Your task to perform on an android device: Go to eBay Image 0: 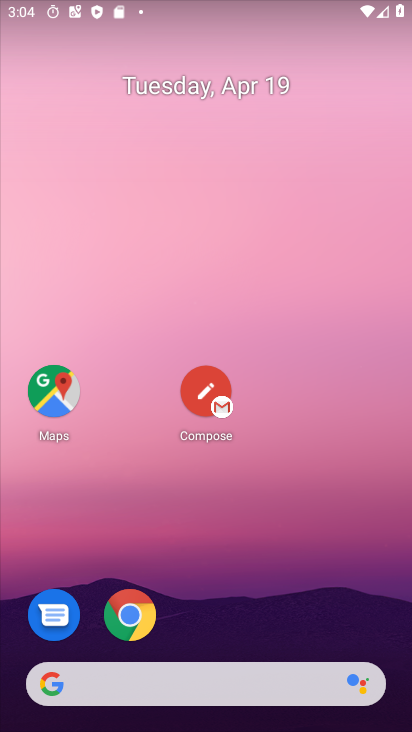
Step 0: click (261, 130)
Your task to perform on an android device: Go to eBay Image 1: 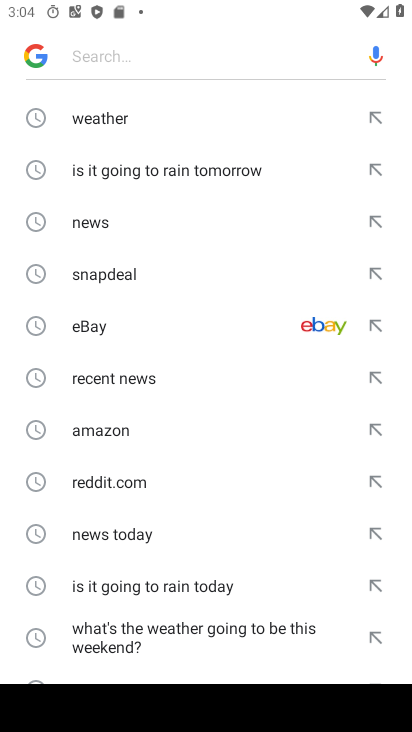
Step 1: press home button
Your task to perform on an android device: Go to eBay Image 2: 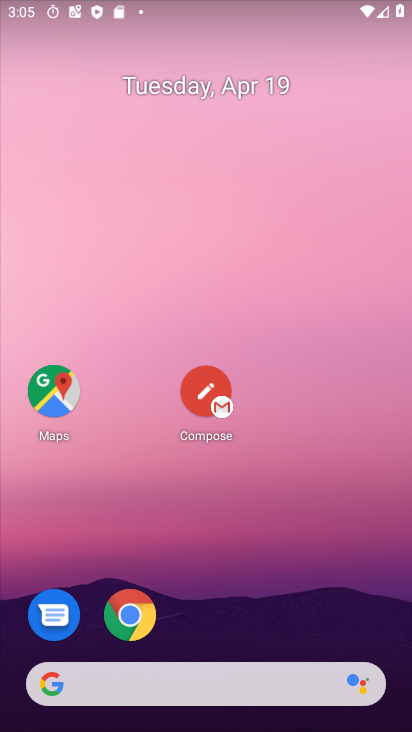
Step 2: drag from (221, 527) to (209, 53)
Your task to perform on an android device: Go to eBay Image 3: 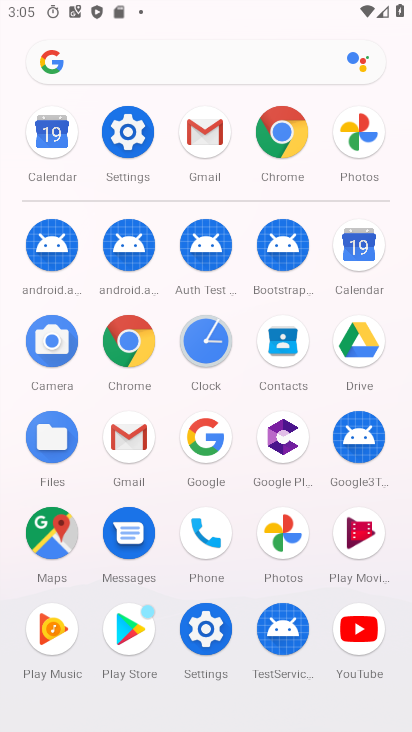
Step 3: click (127, 358)
Your task to perform on an android device: Go to eBay Image 4: 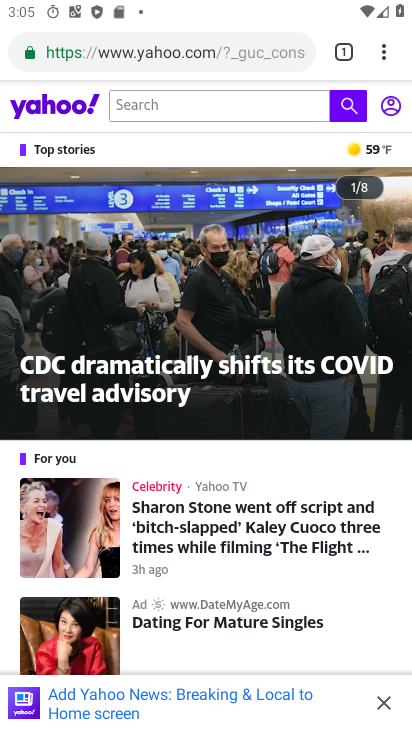
Step 4: click (248, 48)
Your task to perform on an android device: Go to eBay Image 5: 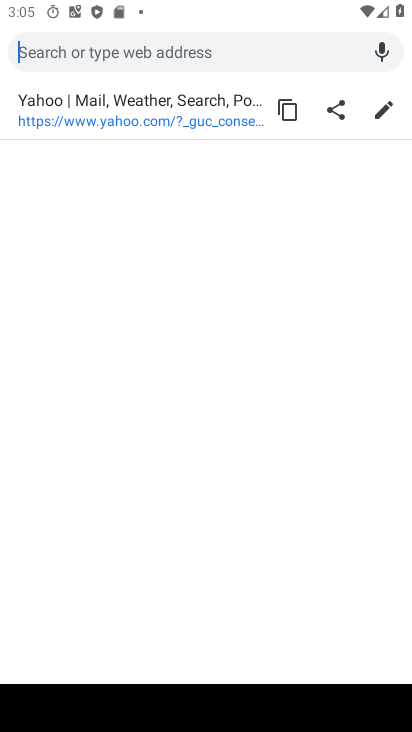
Step 5: type "ebay"
Your task to perform on an android device: Go to eBay Image 6: 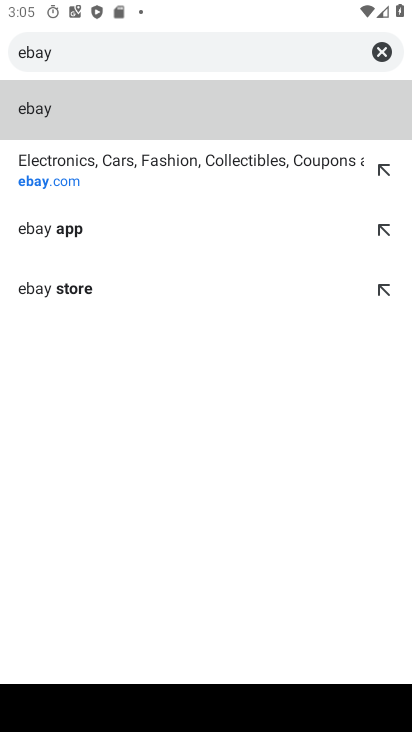
Step 6: click (104, 99)
Your task to perform on an android device: Go to eBay Image 7: 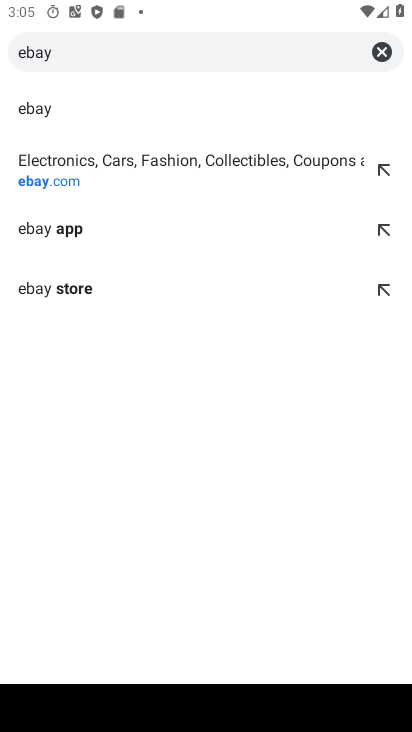
Step 7: click (43, 110)
Your task to perform on an android device: Go to eBay Image 8: 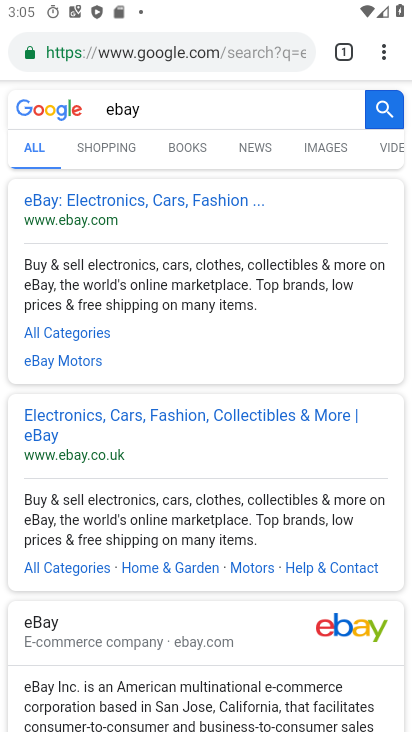
Step 8: task complete